Your task to perform on an android device: Open the phone app and click the voicemail tab. Image 0: 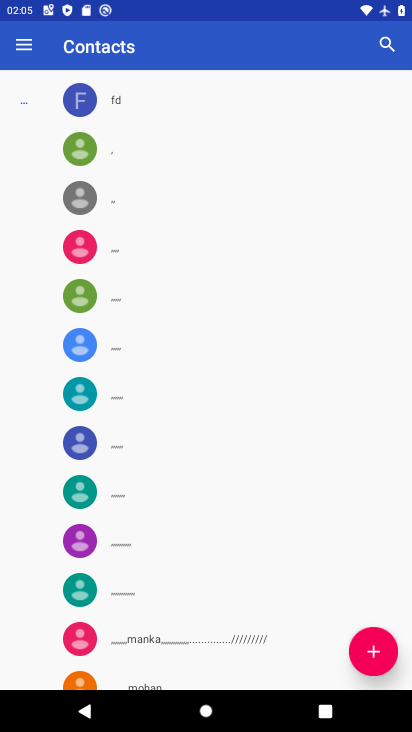
Step 0: press home button
Your task to perform on an android device: Open the phone app and click the voicemail tab. Image 1: 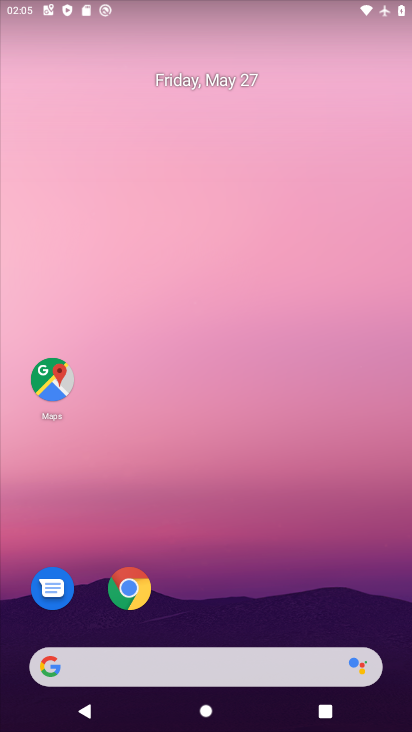
Step 1: drag from (396, 615) to (312, 14)
Your task to perform on an android device: Open the phone app and click the voicemail tab. Image 2: 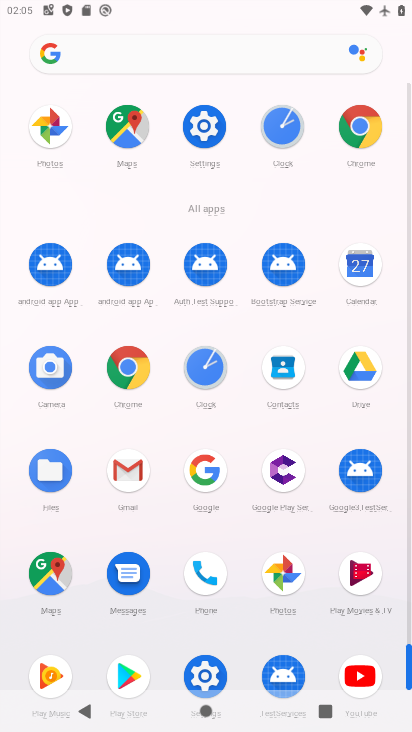
Step 2: click (410, 640)
Your task to perform on an android device: Open the phone app and click the voicemail tab. Image 3: 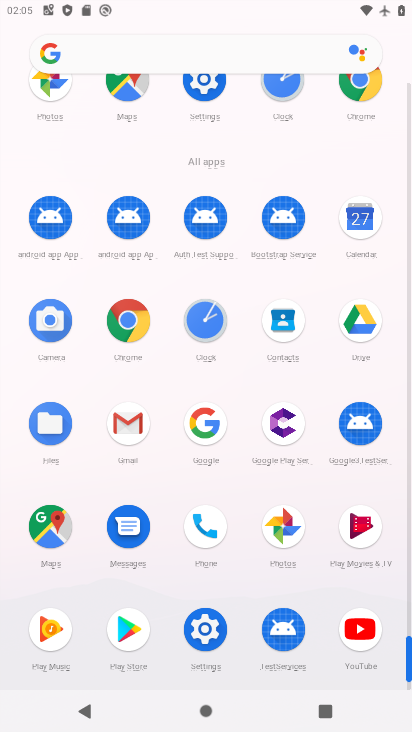
Step 3: click (201, 524)
Your task to perform on an android device: Open the phone app and click the voicemail tab. Image 4: 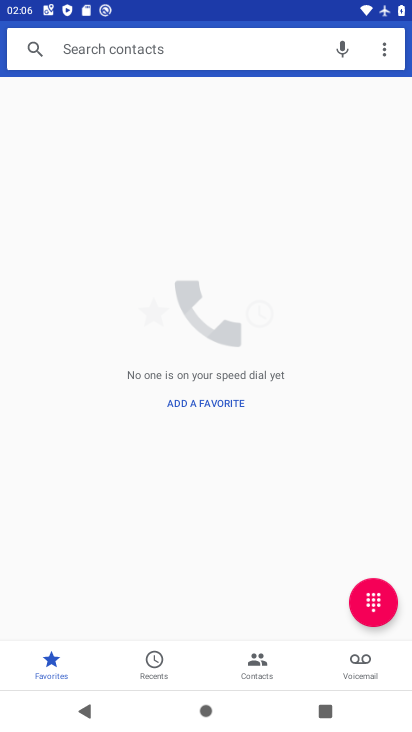
Step 4: click (367, 672)
Your task to perform on an android device: Open the phone app and click the voicemail tab. Image 5: 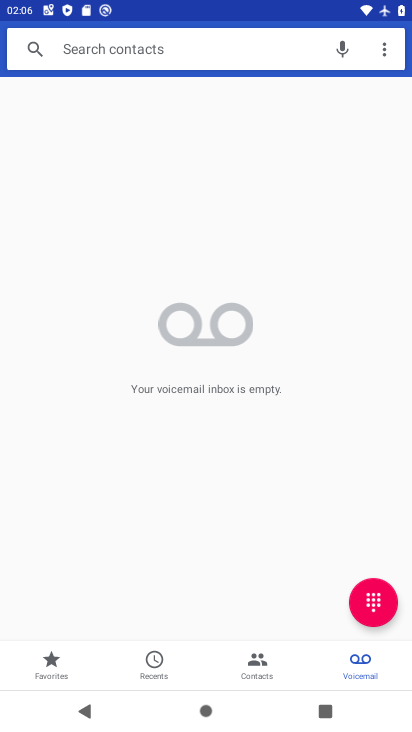
Step 5: task complete